Your task to perform on an android device: Go to network settings Image 0: 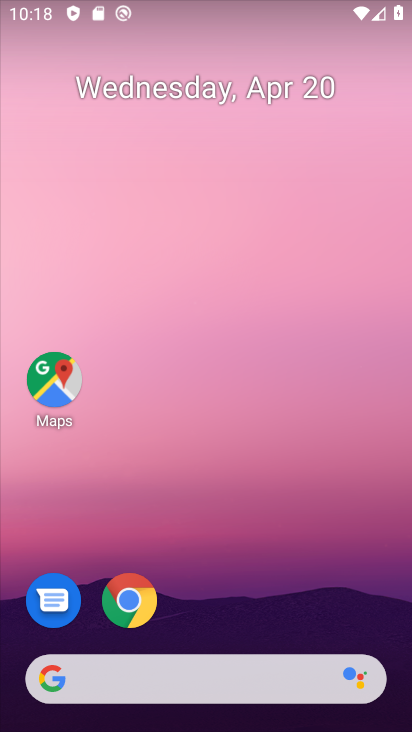
Step 0: drag from (307, 454) to (292, 86)
Your task to perform on an android device: Go to network settings Image 1: 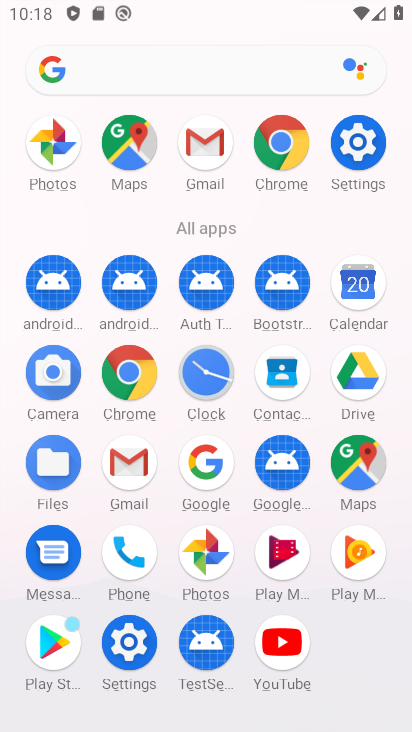
Step 1: click (128, 647)
Your task to perform on an android device: Go to network settings Image 2: 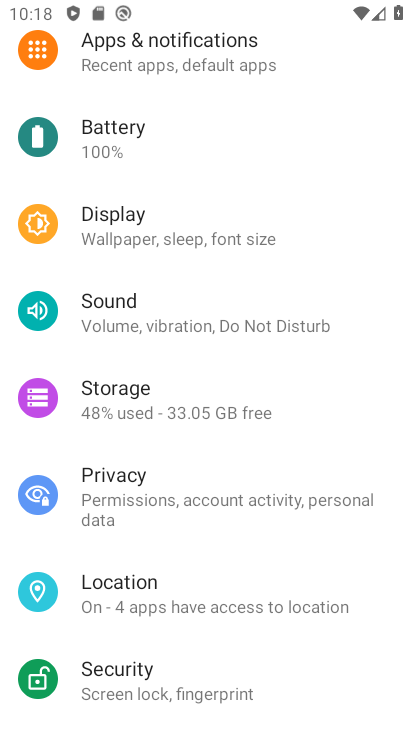
Step 2: drag from (243, 251) to (241, 642)
Your task to perform on an android device: Go to network settings Image 3: 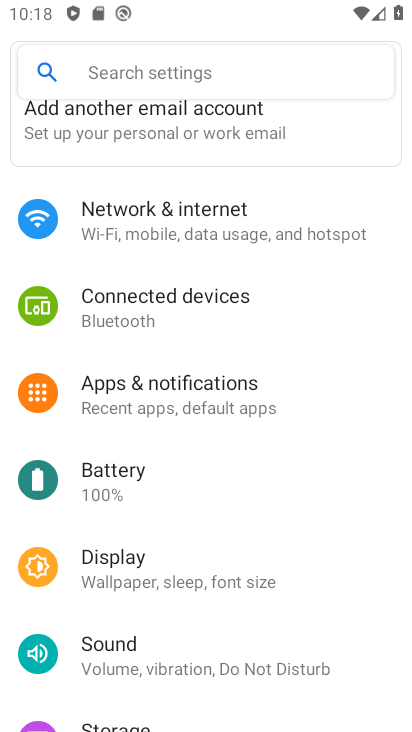
Step 3: click (217, 214)
Your task to perform on an android device: Go to network settings Image 4: 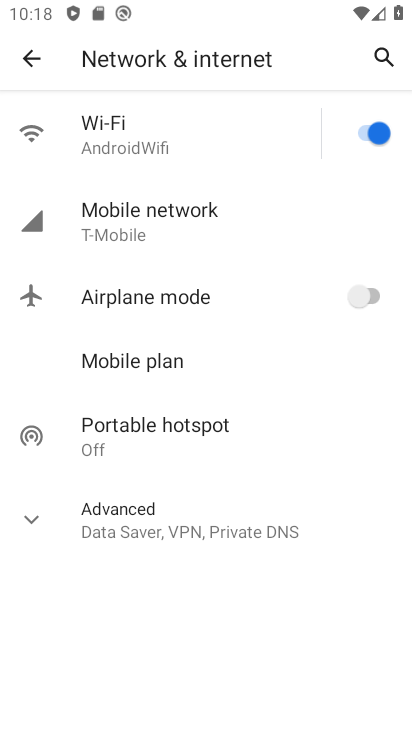
Step 4: task complete